Your task to perform on an android device: change your default location settings in chrome Image 0: 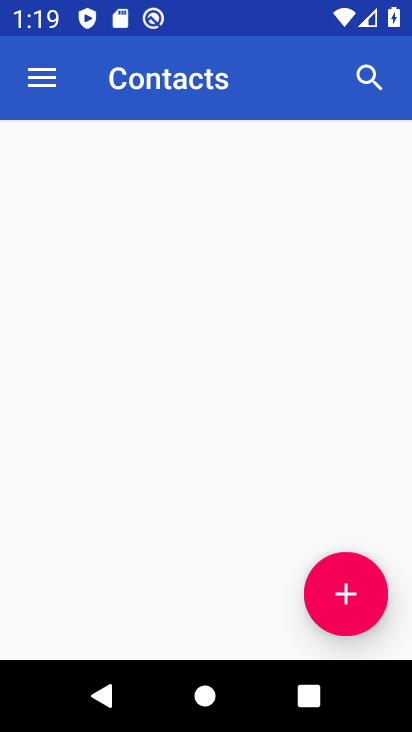
Step 0: press home button
Your task to perform on an android device: change your default location settings in chrome Image 1: 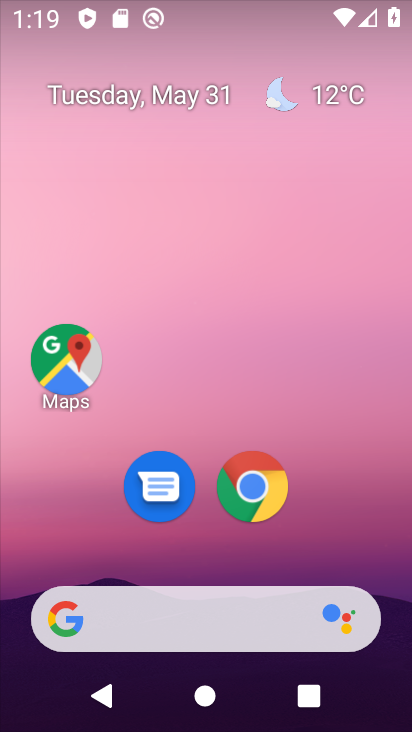
Step 1: click (253, 480)
Your task to perform on an android device: change your default location settings in chrome Image 2: 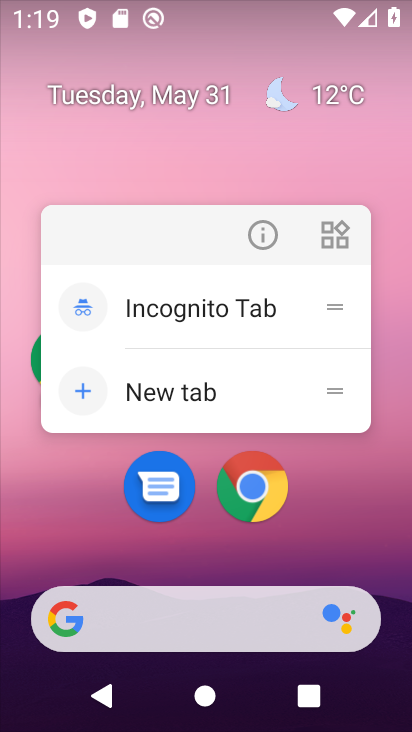
Step 2: click (263, 494)
Your task to perform on an android device: change your default location settings in chrome Image 3: 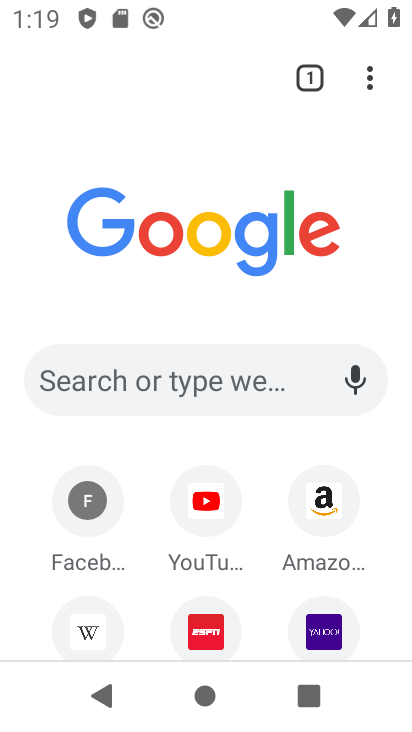
Step 3: click (371, 90)
Your task to perform on an android device: change your default location settings in chrome Image 4: 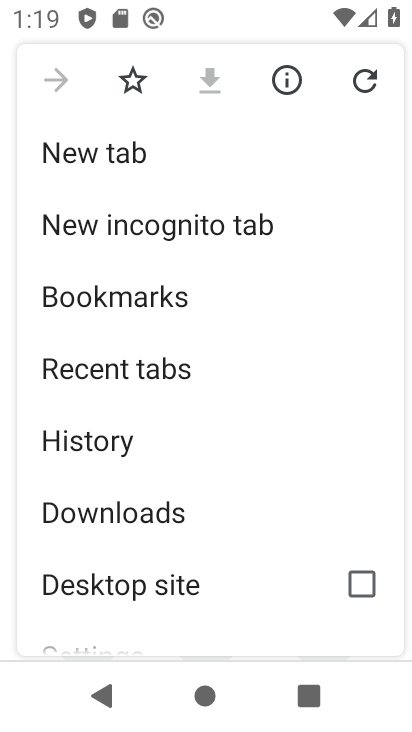
Step 4: drag from (129, 573) to (155, 282)
Your task to perform on an android device: change your default location settings in chrome Image 5: 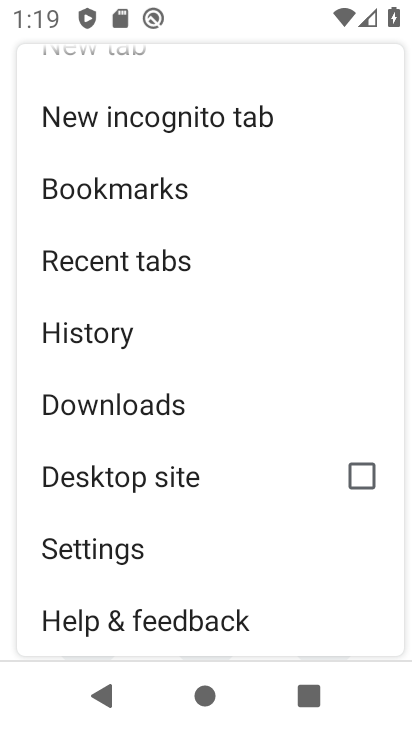
Step 5: click (118, 560)
Your task to perform on an android device: change your default location settings in chrome Image 6: 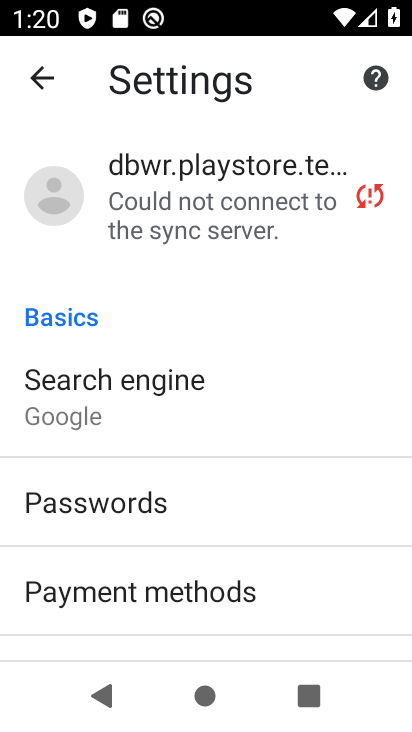
Step 6: drag from (161, 608) to (172, 227)
Your task to perform on an android device: change your default location settings in chrome Image 7: 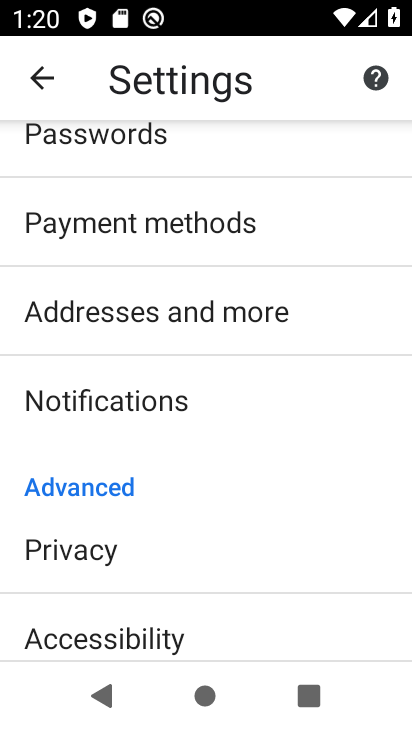
Step 7: drag from (209, 609) to (205, 201)
Your task to perform on an android device: change your default location settings in chrome Image 8: 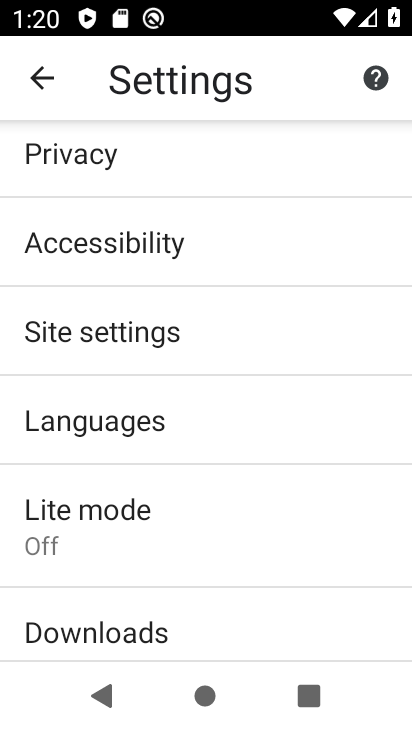
Step 8: click (88, 338)
Your task to perform on an android device: change your default location settings in chrome Image 9: 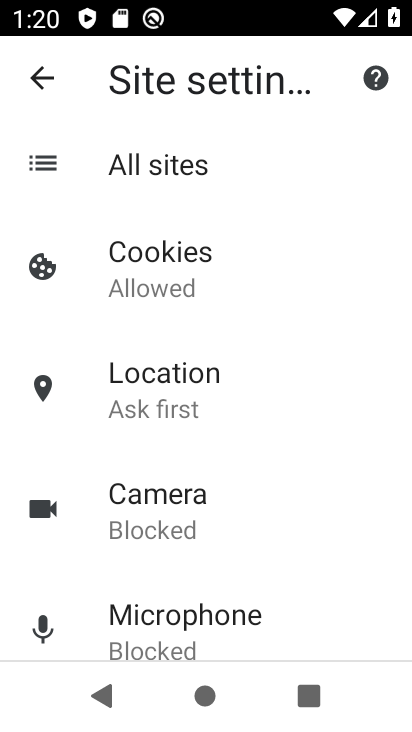
Step 9: drag from (141, 551) to (131, 315)
Your task to perform on an android device: change your default location settings in chrome Image 10: 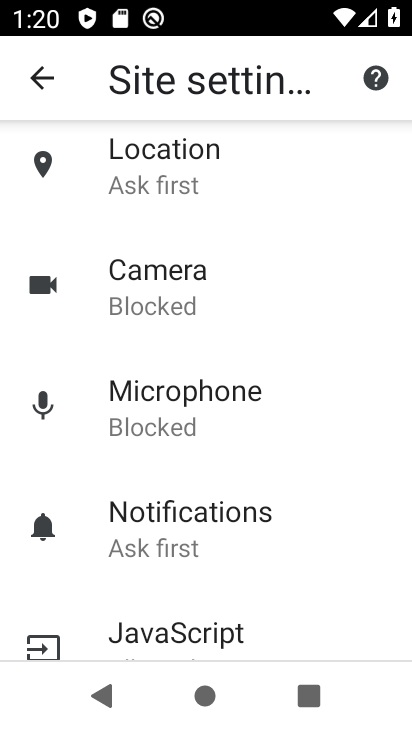
Step 10: click (151, 169)
Your task to perform on an android device: change your default location settings in chrome Image 11: 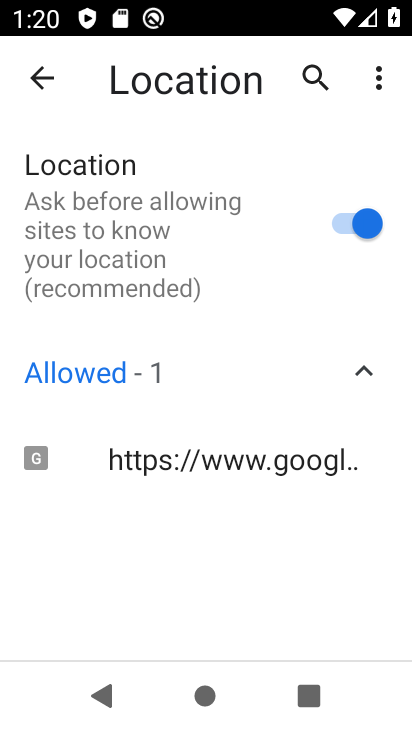
Step 11: click (335, 234)
Your task to perform on an android device: change your default location settings in chrome Image 12: 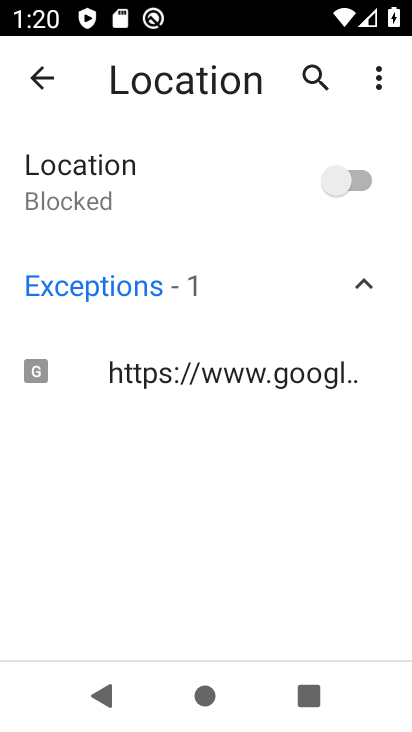
Step 12: task complete